Your task to perform on an android device: set the stopwatch Image 0: 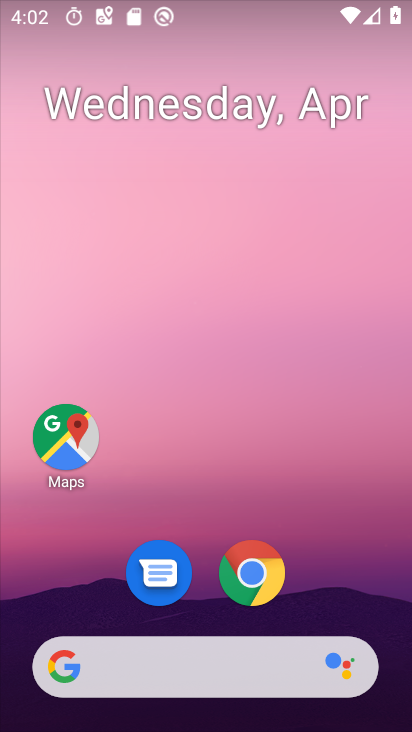
Step 0: drag from (379, 594) to (313, 31)
Your task to perform on an android device: set the stopwatch Image 1: 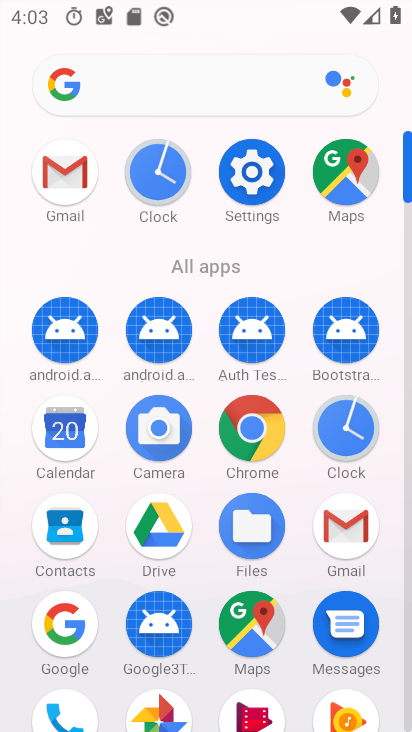
Step 1: click (356, 435)
Your task to perform on an android device: set the stopwatch Image 2: 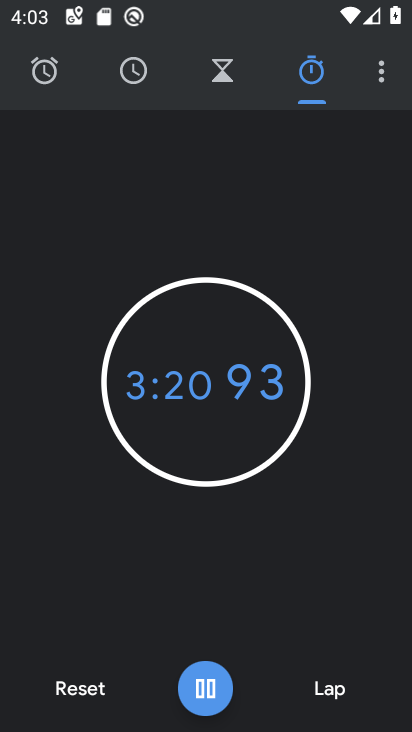
Step 2: click (315, 76)
Your task to perform on an android device: set the stopwatch Image 3: 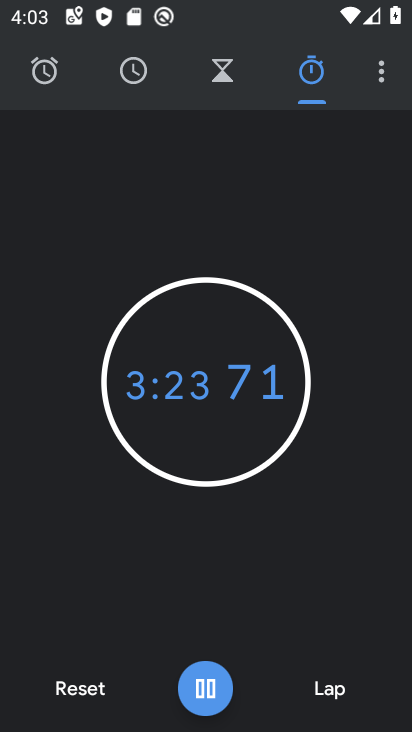
Step 3: click (88, 684)
Your task to perform on an android device: set the stopwatch Image 4: 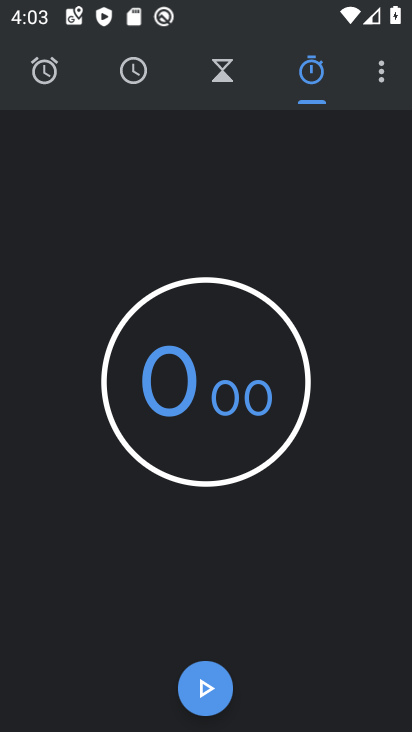
Step 4: click (201, 684)
Your task to perform on an android device: set the stopwatch Image 5: 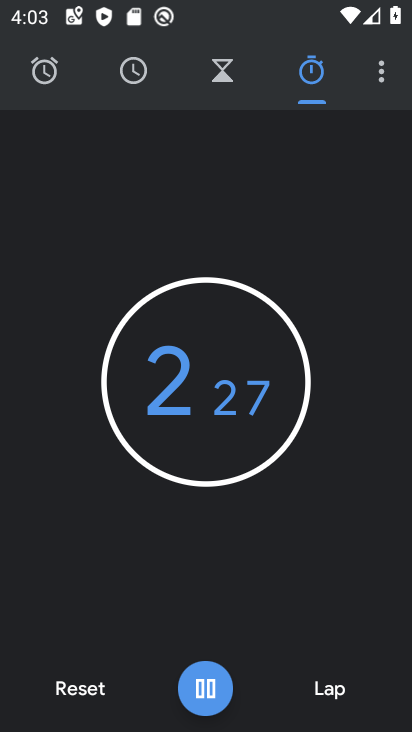
Step 5: task complete